Your task to perform on an android device: uninstall "Messenger Lite" Image 0: 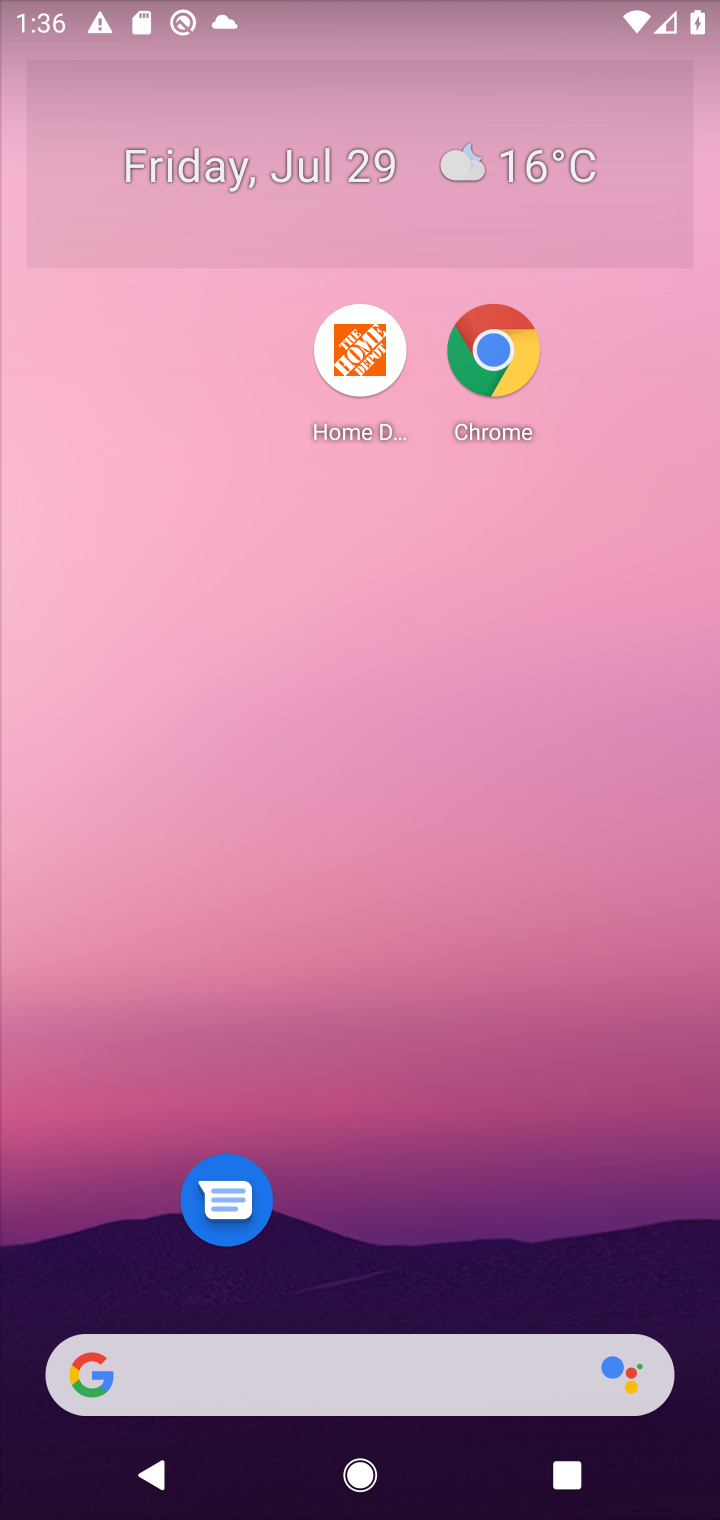
Step 0: drag from (438, 1237) to (348, 31)
Your task to perform on an android device: uninstall "Messenger Lite" Image 1: 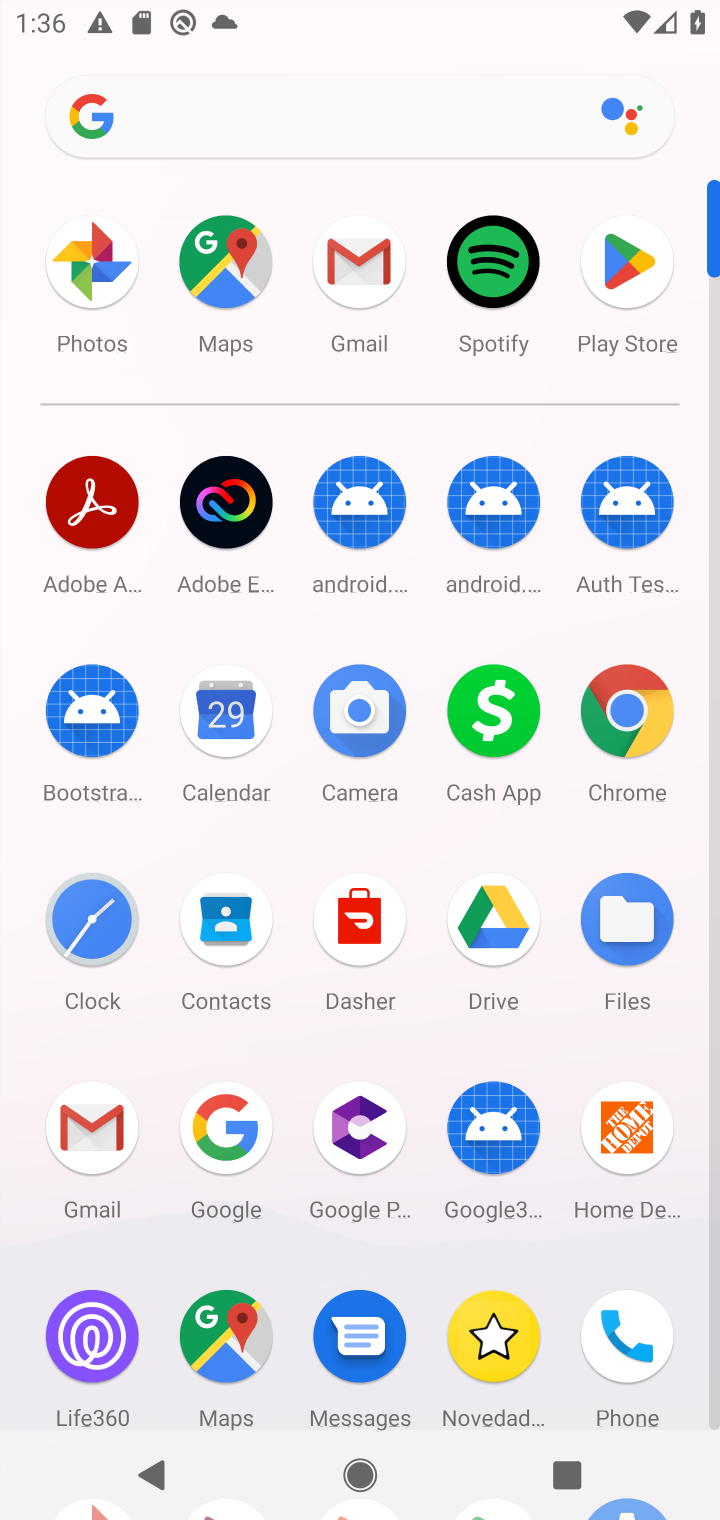
Step 1: click (632, 257)
Your task to perform on an android device: uninstall "Messenger Lite" Image 2: 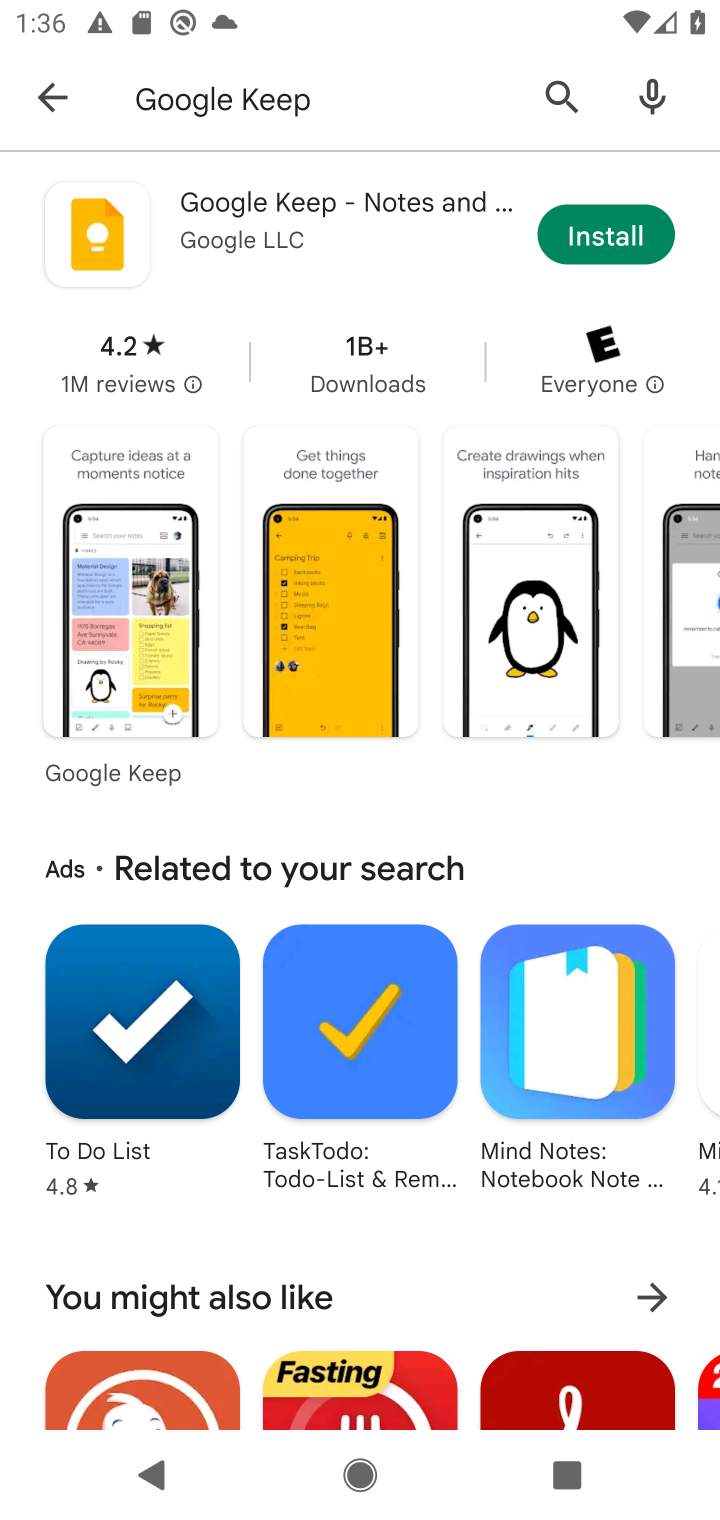
Step 2: click (317, 94)
Your task to perform on an android device: uninstall "Messenger Lite" Image 3: 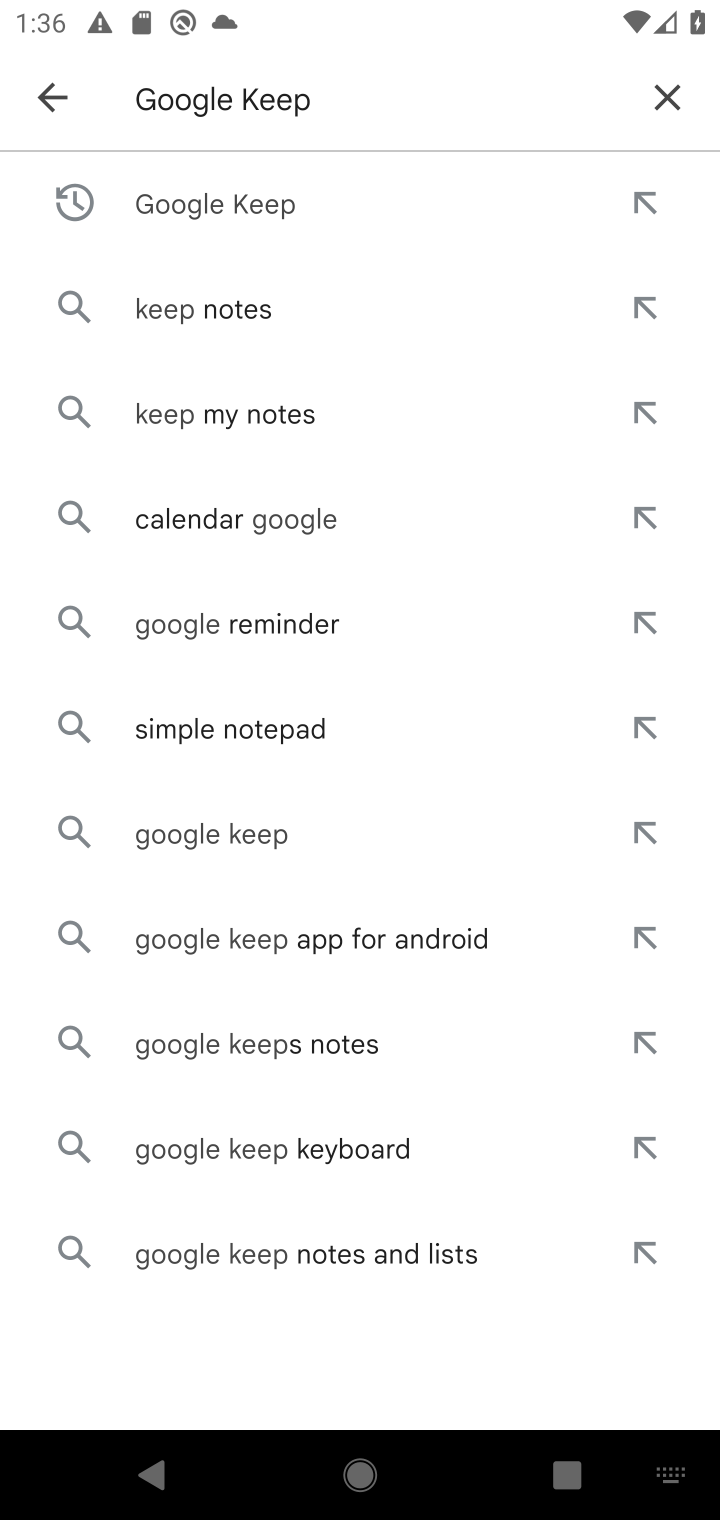
Step 3: click (440, 104)
Your task to perform on an android device: uninstall "Messenger Lite" Image 4: 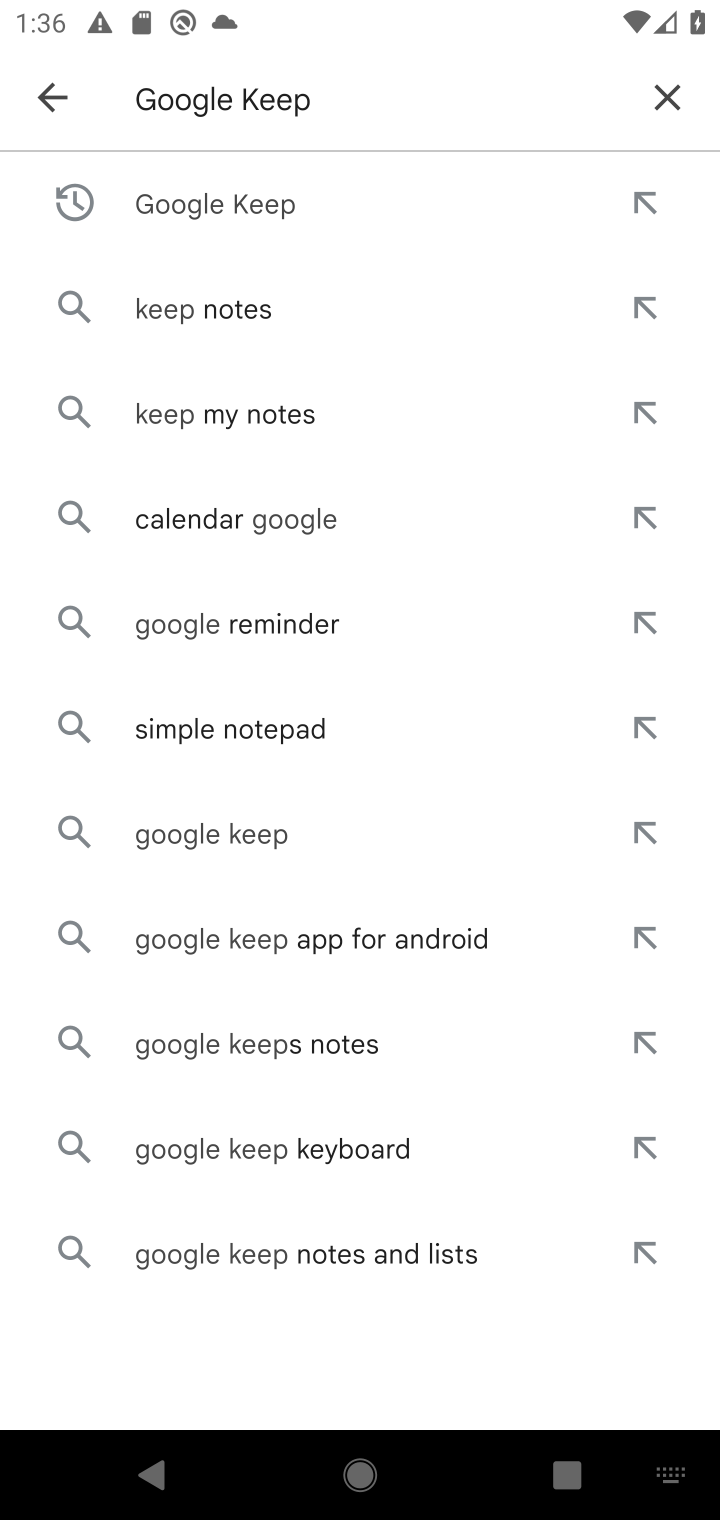
Step 4: click (662, 90)
Your task to perform on an android device: uninstall "Messenger Lite" Image 5: 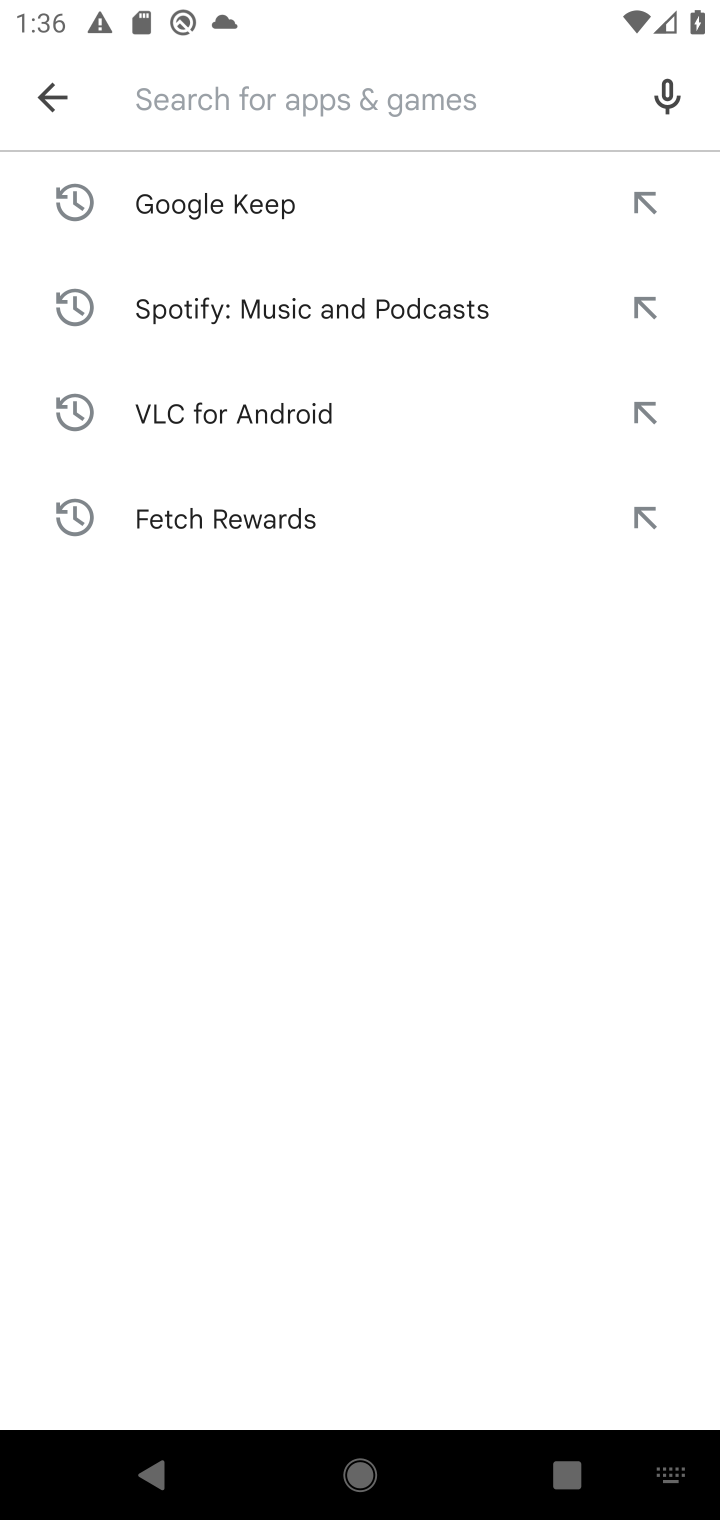
Step 5: type "Messenger"
Your task to perform on an android device: uninstall "Messenger Lite" Image 6: 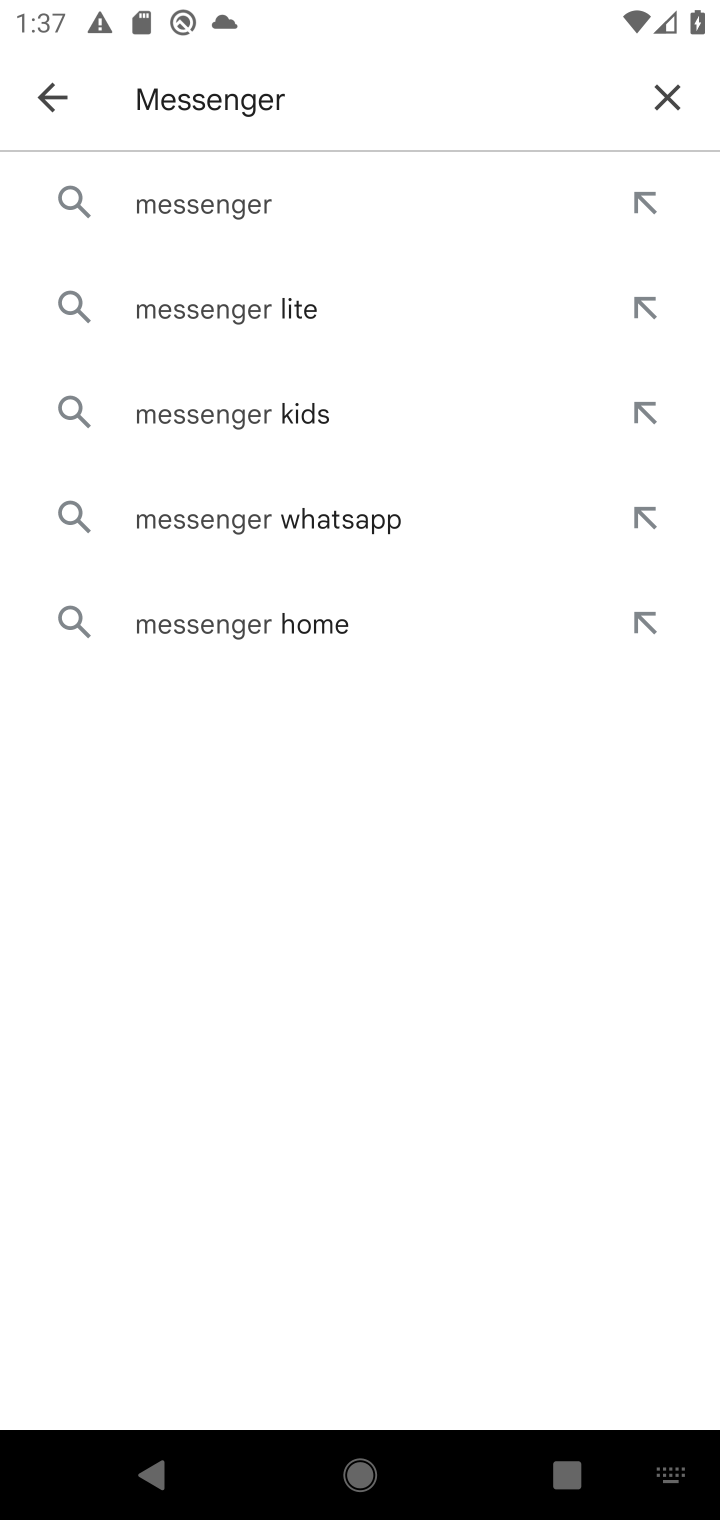
Step 6: type " Lite"
Your task to perform on an android device: uninstall "Messenger Lite" Image 7: 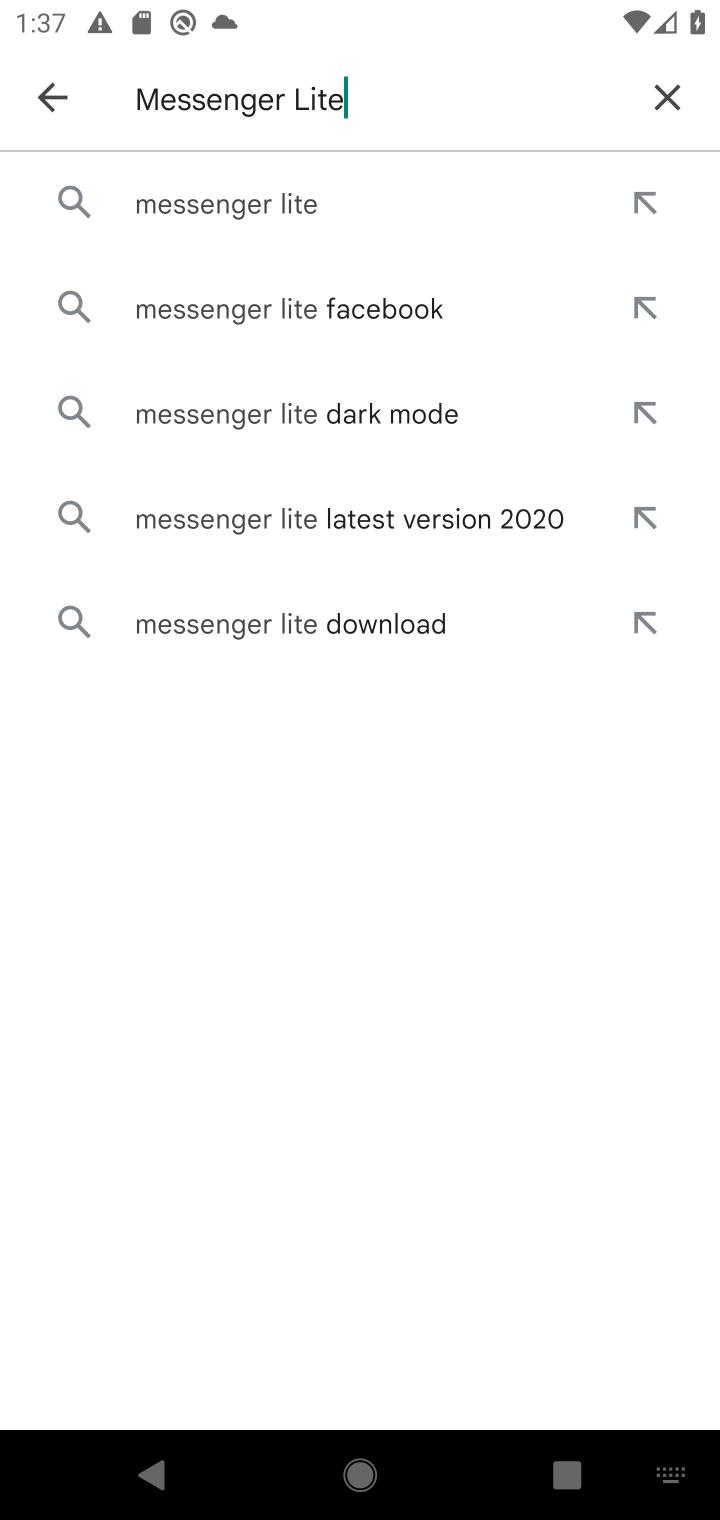
Step 7: press enter
Your task to perform on an android device: uninstall "Messenger Lite" Image 8: 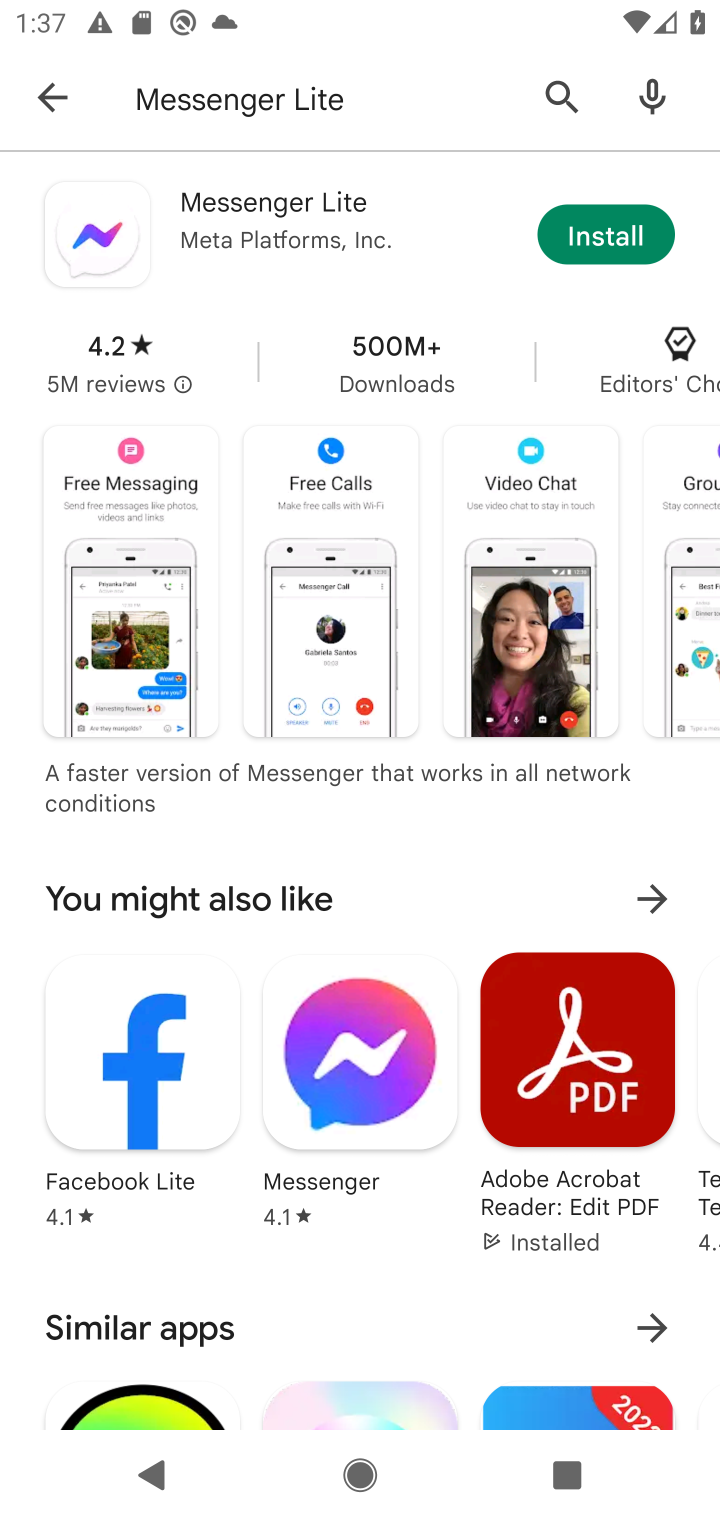
Step 8: task complete